Your task to perform on an android device: open wifi settings Image 0: 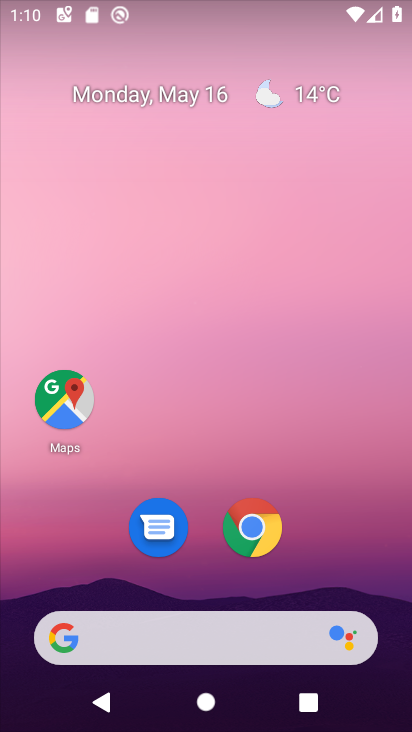
Step 0: drag from (242, 352) to (290, 32)
Your task to perform on an android device: open wifi settings Image 1: 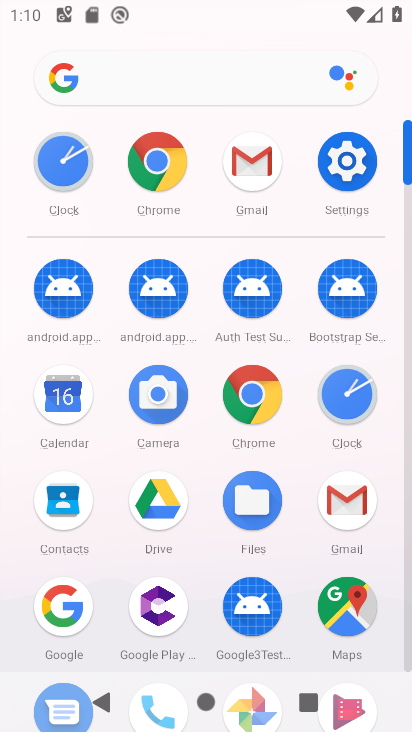
Step 1: click (347, 178)
Your task to perform on an android device: open wifi settings Image 2: 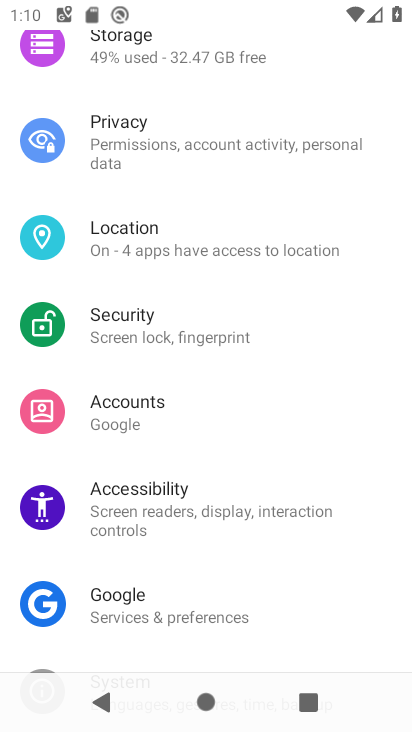
Step 2: drag from (258, 206) to (242, 727)
Your task to perform on an android device: open wifi settings Image 3: 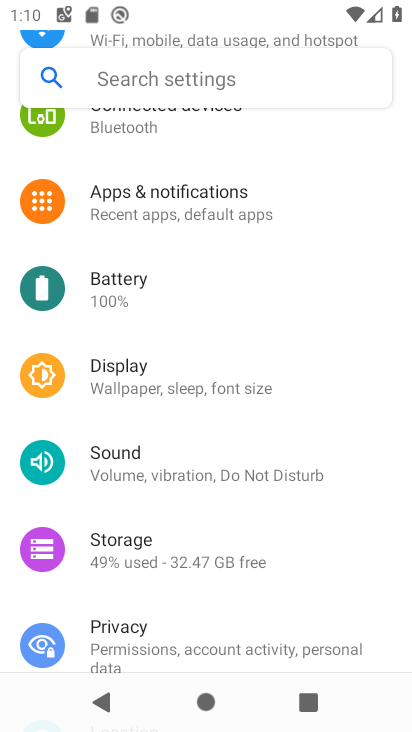
Step 3: drag from (234, 288) to (180, 713)
Your task to perform on an android device: open wifi settings Image 4: 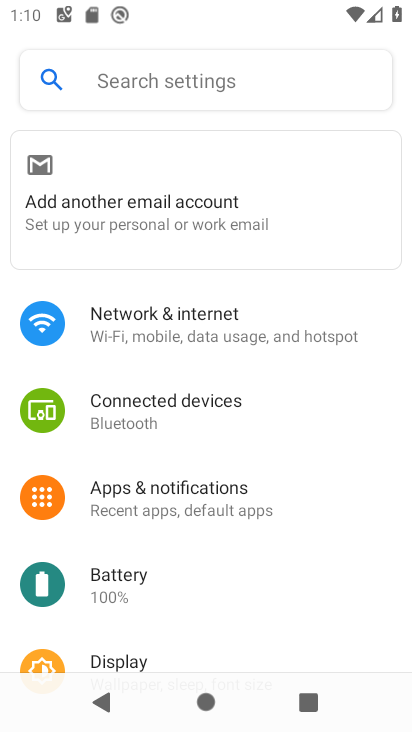
Step 4: drag from (192, 137) to (96, 613)
Your task to perform on an android device: open wifi settings Image 5: 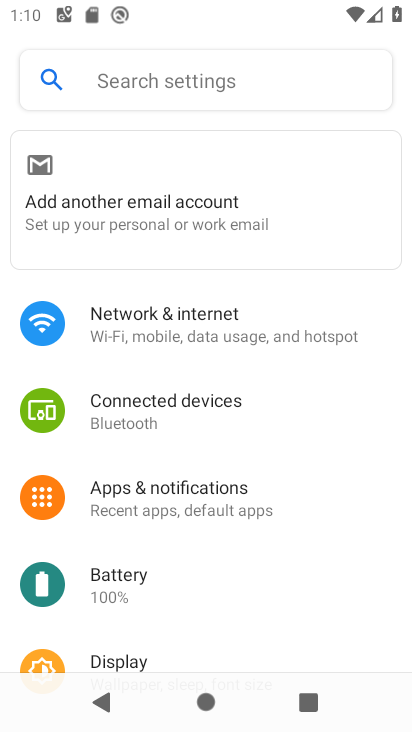
Step 5: click (137, 343)
Your task to perform on an android device: open wifi settings Image 6: 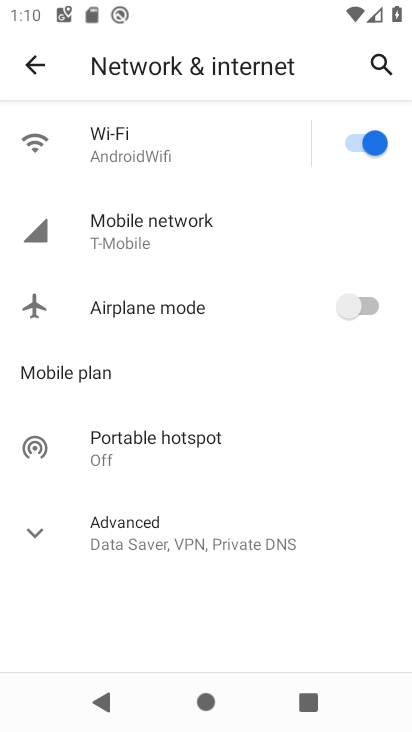
Step 6: click (141, 153)
Your task to perform on an android device: open wifi settings Image 7: 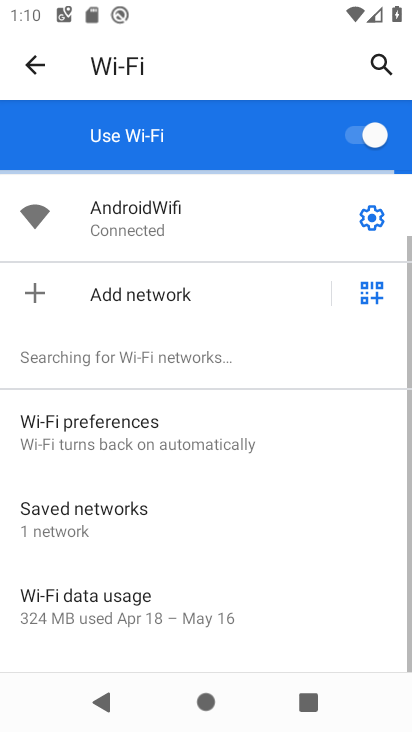
Step 7: task complete